Your task to perform on an android device: Search for macbook pro 15 inch on costco, select the first entry, and add it to the cart. Image 0: 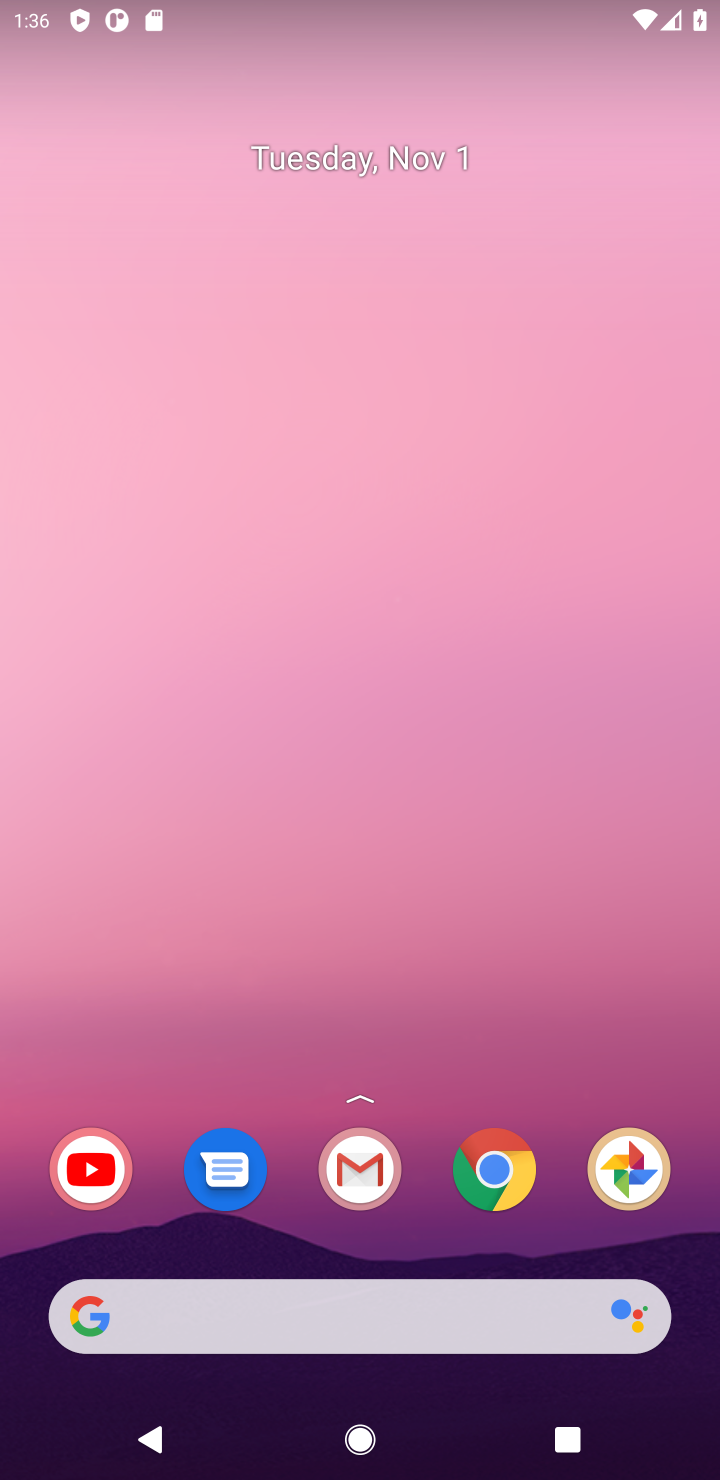
Step 0: click (465, 1153)
Your task to perform on an android device: Search for macbook pro 15 inch on costco, select the first entry, and add it to the cart. Image 1: 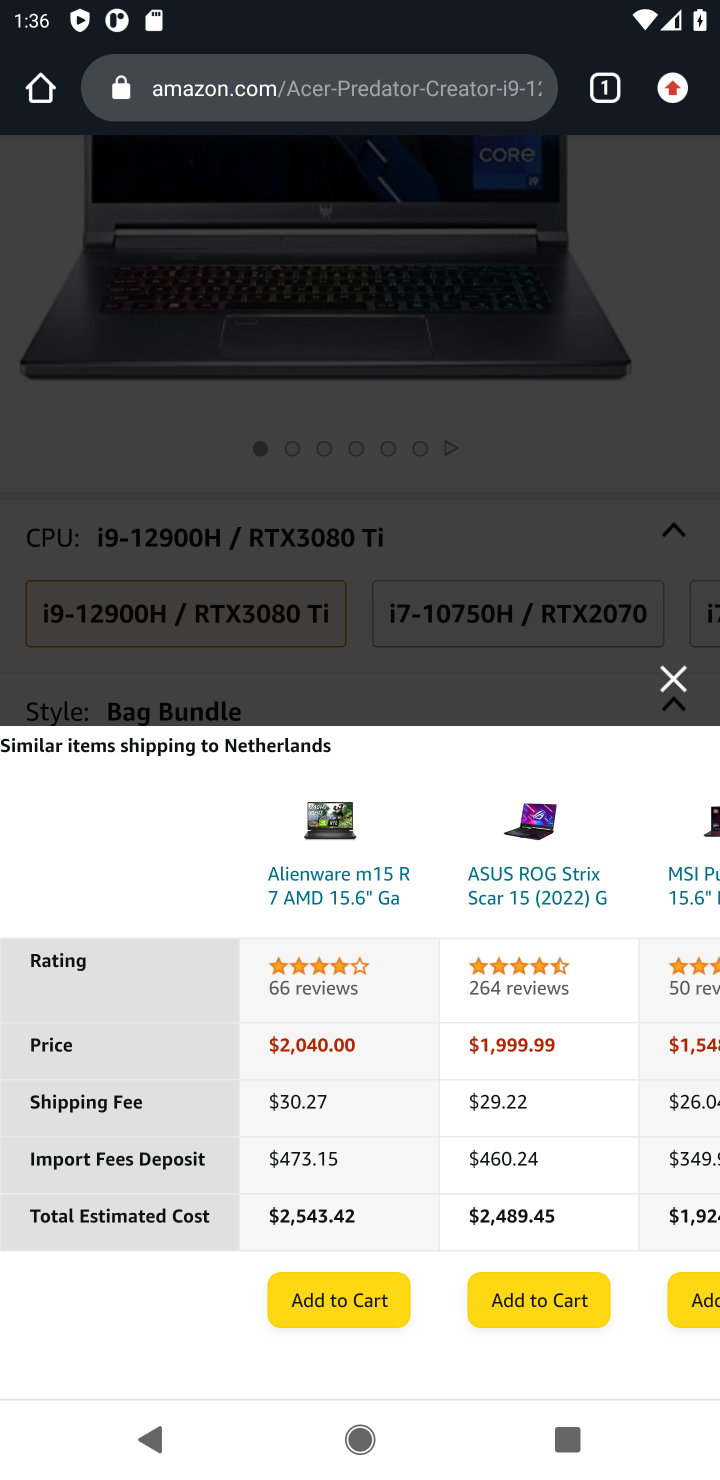
Step 1: click (478, 1170)
Your task to perform on an android device: Search for macbook pro 15 inch on costco, select the first entry, and add it to the cart. Image 2: 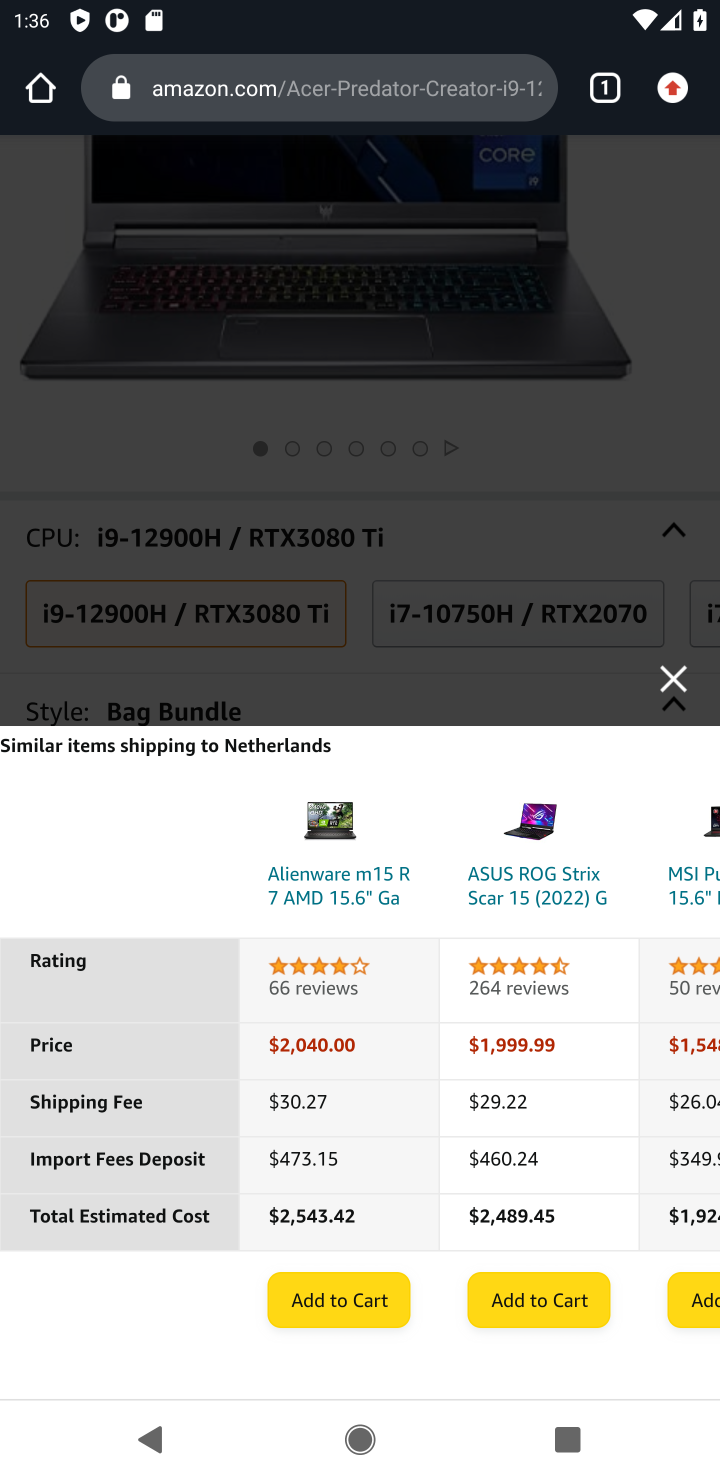
Step 2: task complete